Your task to perform on an android device: change the clock display to digital Image 0: 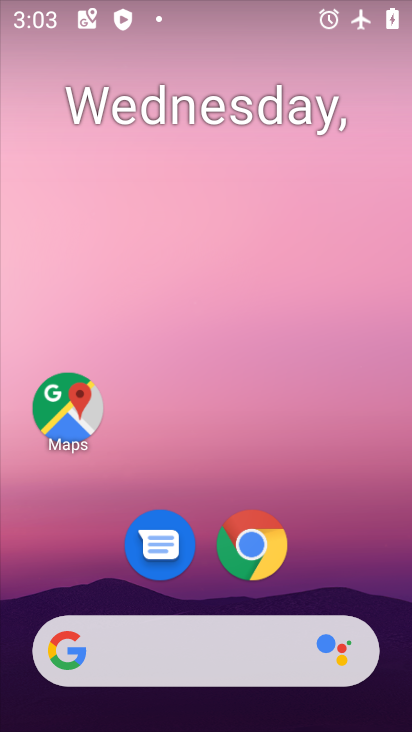
Step 0: drag from (324, 542) to (321, 142)
Your task to perform on an android device: change the clock display to digital Image 1: 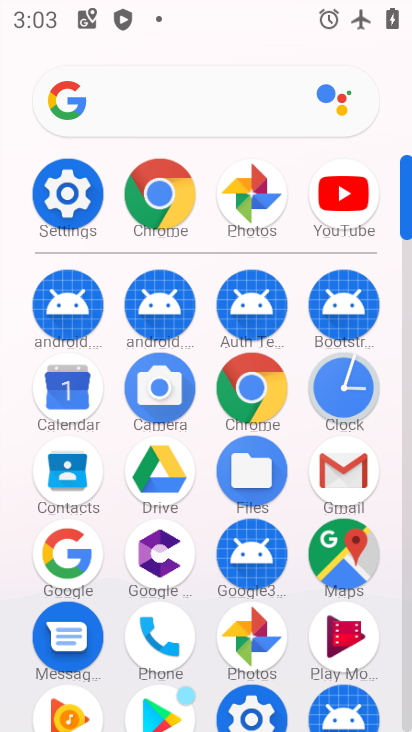
Step 1: click (334, 385)
Your task to perform on an android device: change the clock display to digital Image 2: 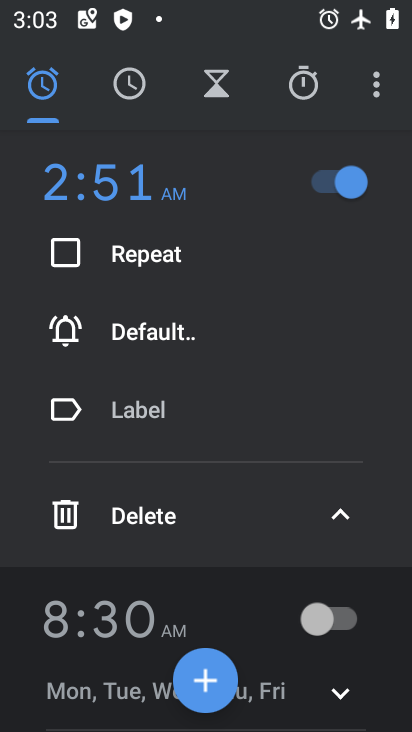
Step 2: click (378, 78)
Your task to perform on an android device: change the clock display to digital Image 3: 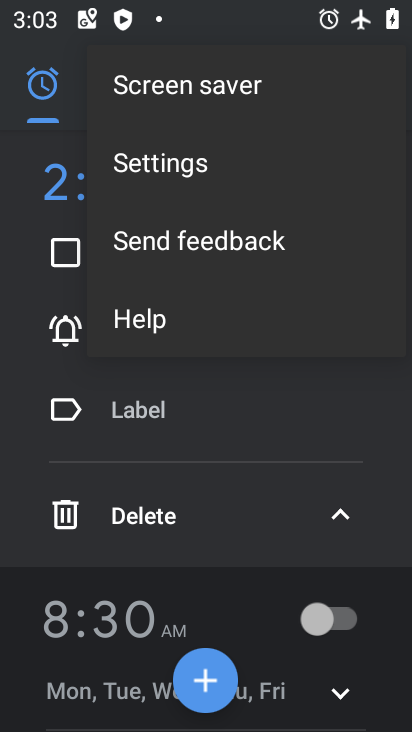
Step 3: click (217, 168)
Your task to perform on an android device: change the clock display to digital Image 4: 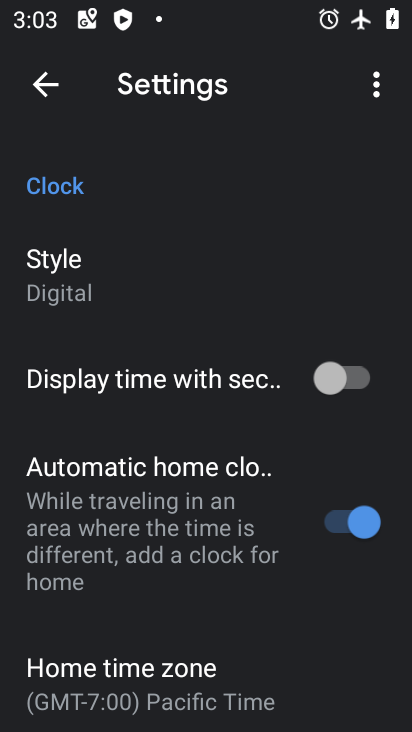
Step 4: task complete